Your task to perform on an android device: set an alarm Image 0: 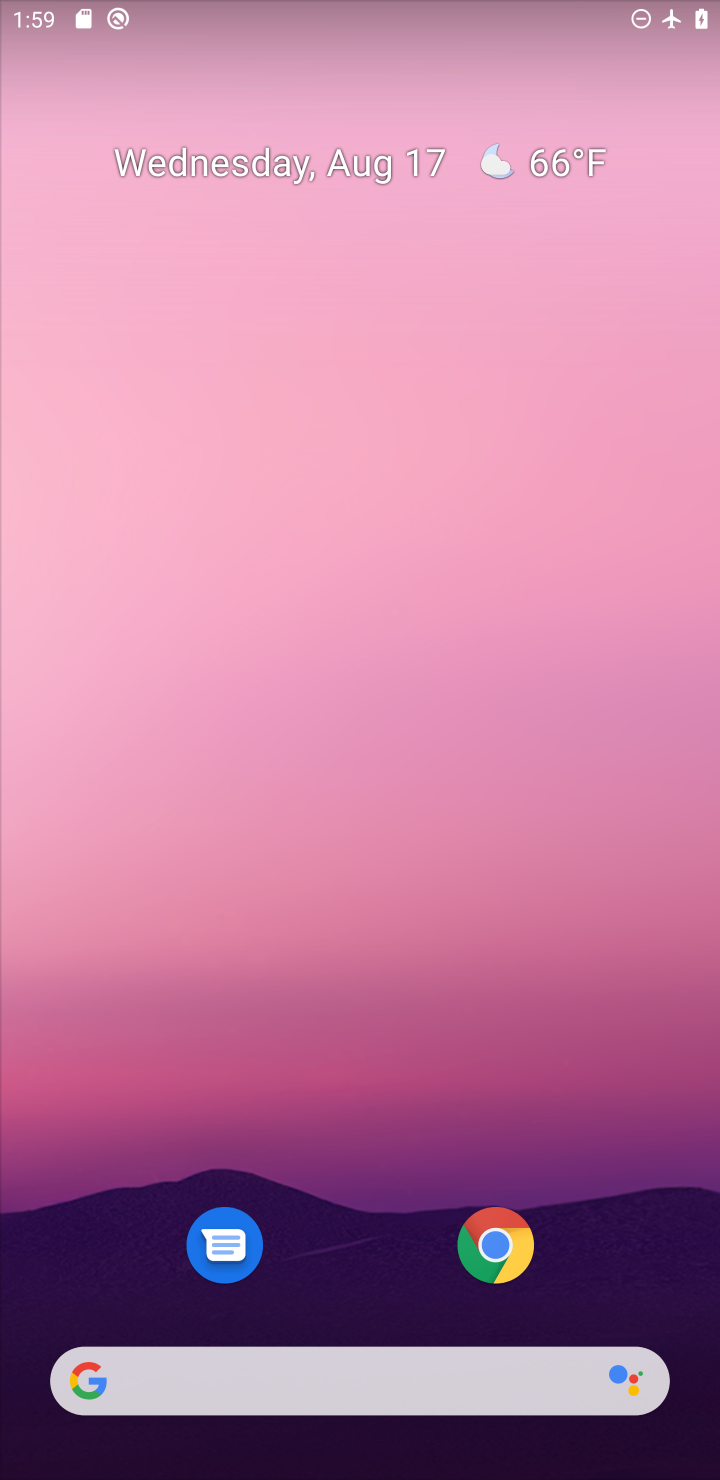
Step 0: drag from (367, 1106) to (367, 212)
Your task to perform on an android device: set an alarm Image 1: 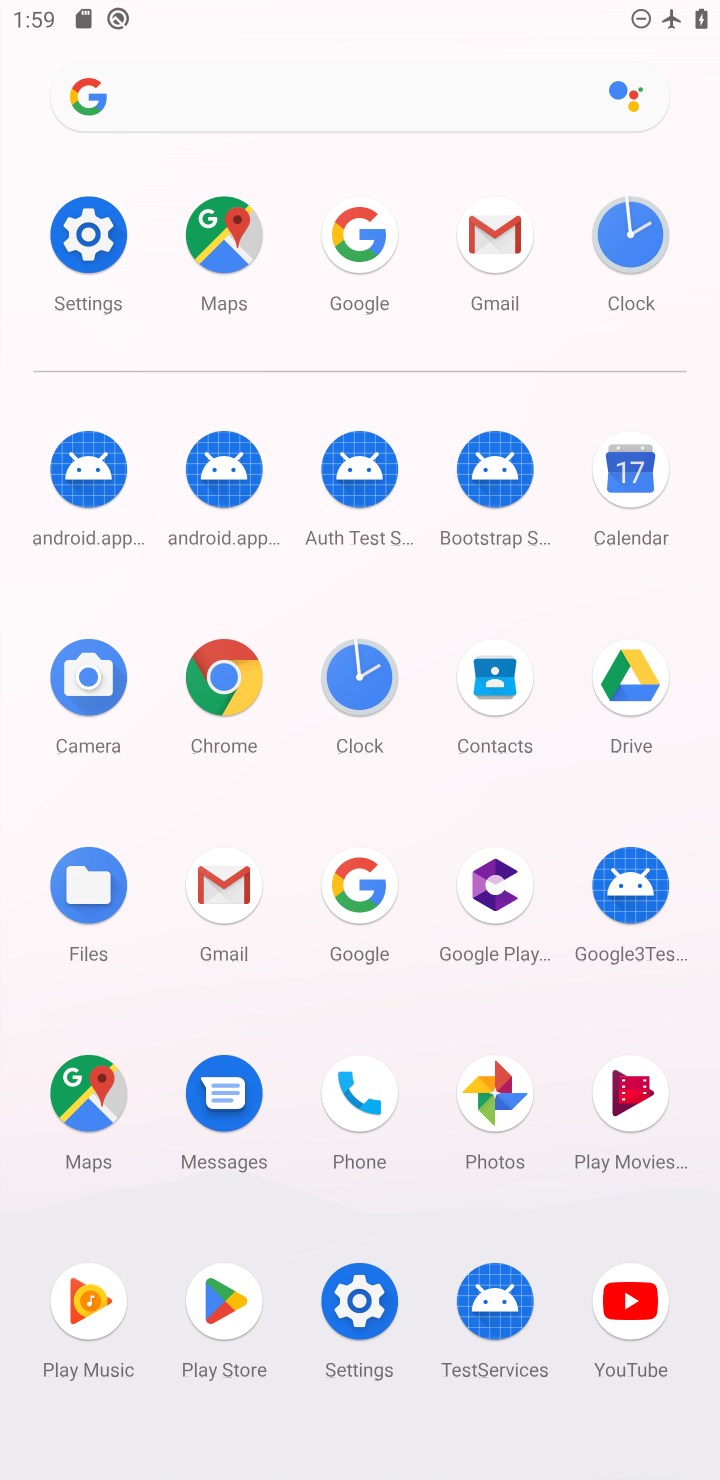
Step 1: click (361, 674)
Your task to perform on an android device: set an alarm Image 2: 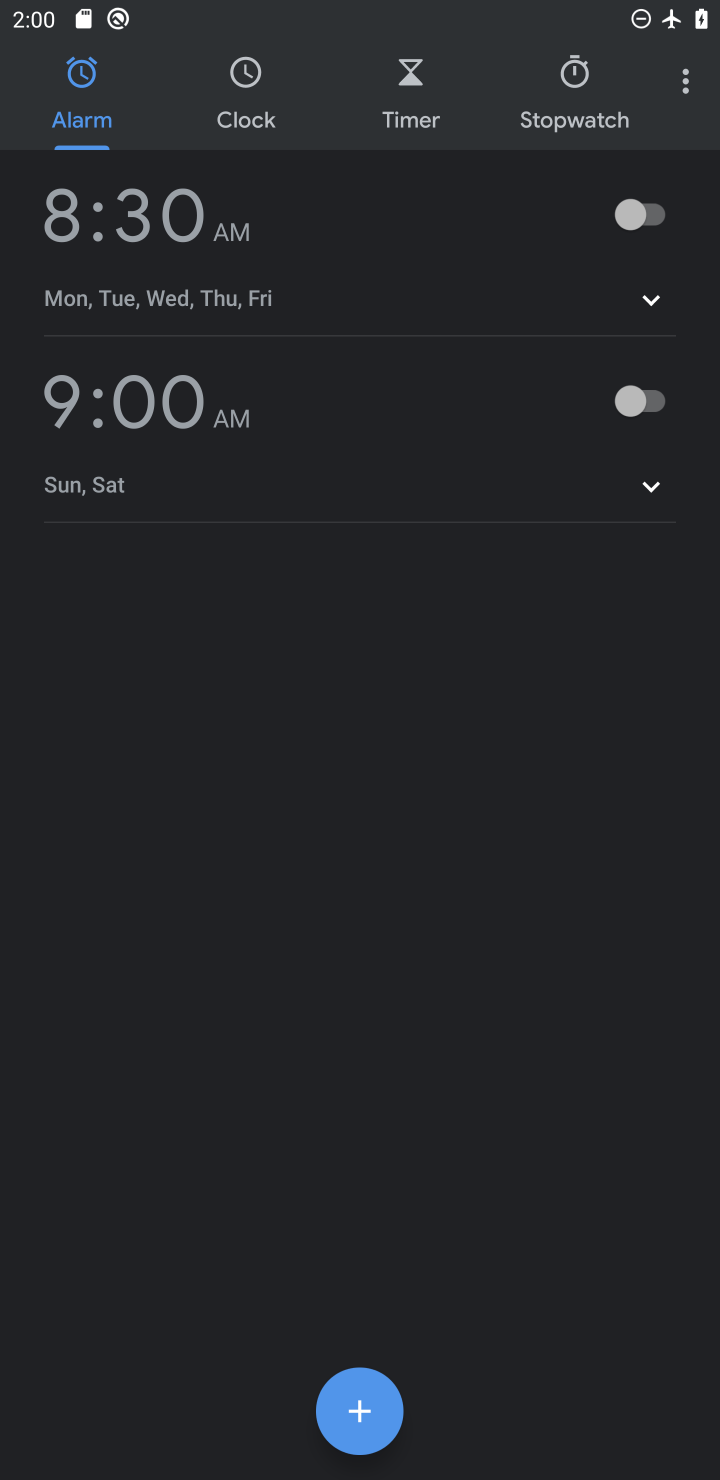
Step 2: click (366, 1412)
Your task to perform on an android device: set an alarm Image 3: 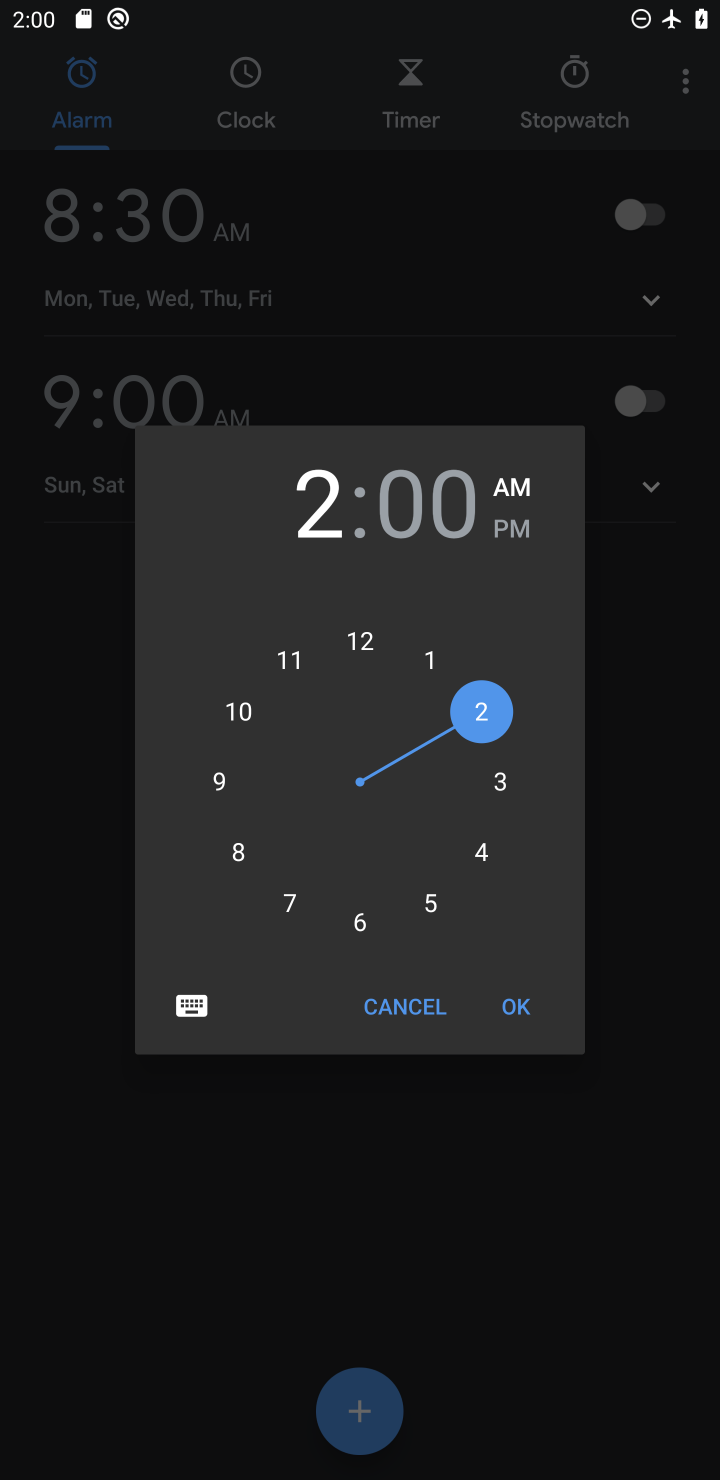
Step 3: click (355, 921)
Your task to perform on an android device: set an alarm Image 4: 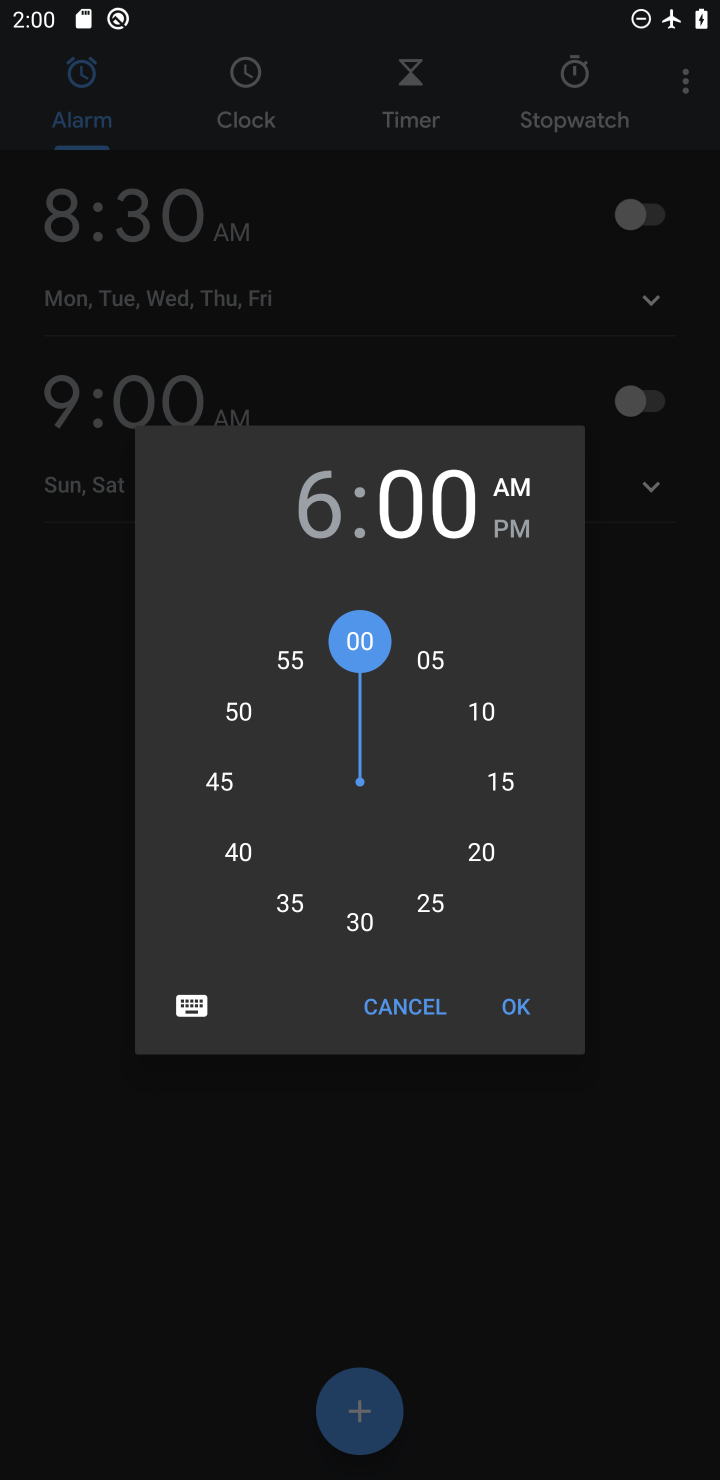
Step 4: click (526, 1007)
Your task to perform on an android device: set an alarm Image 5: 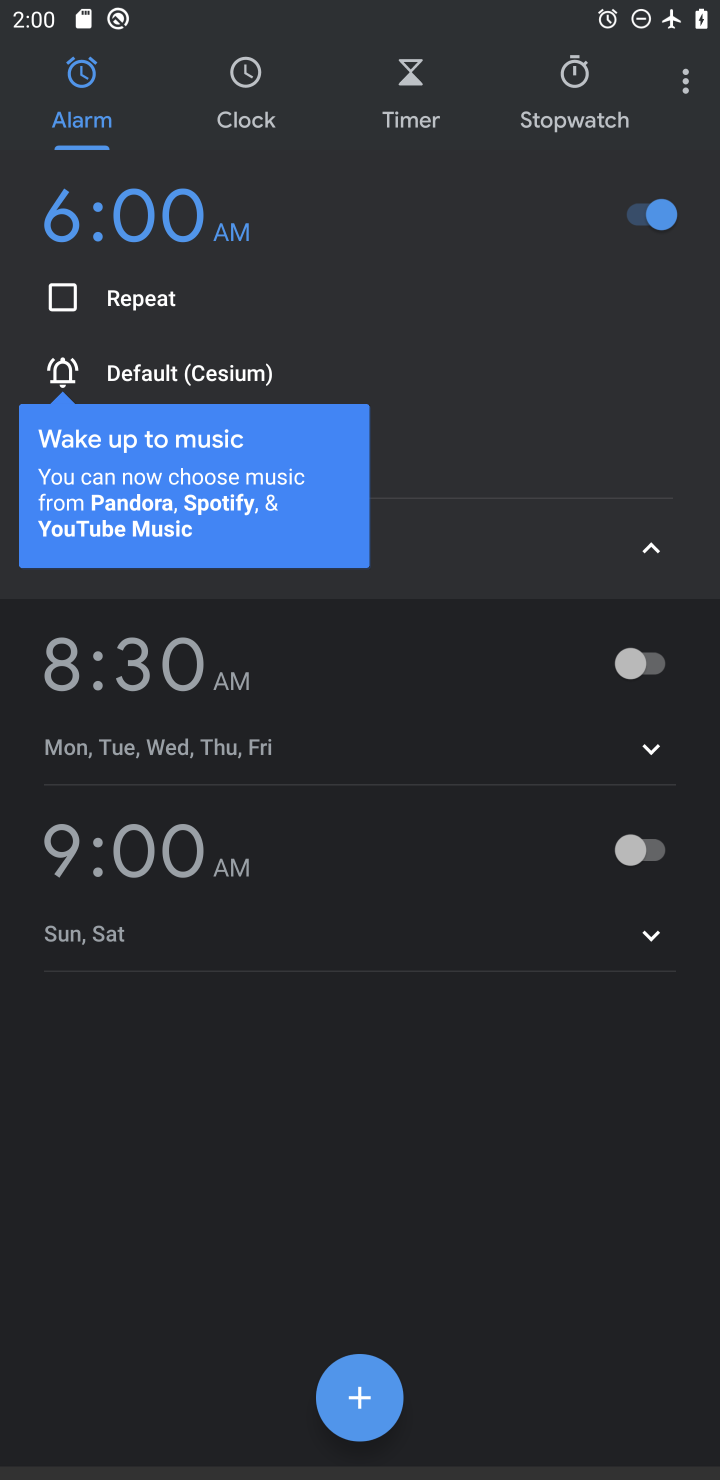
Step 5: task complete